Your task to perform on an android device: Open notification settings Image 0: 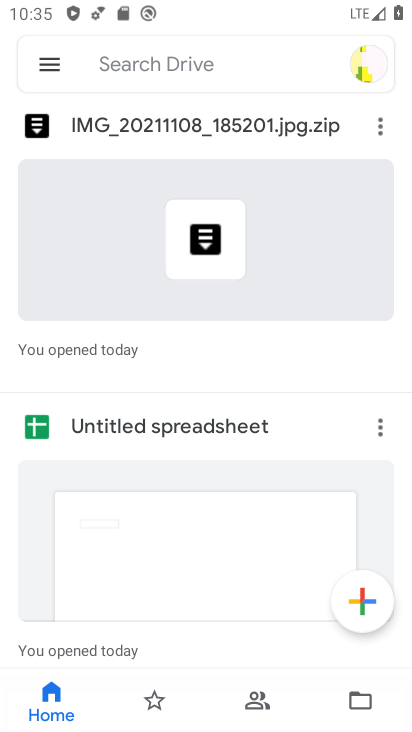
Step 0: press home button
Your task to perform on an android device: Open notification settings Image 1: 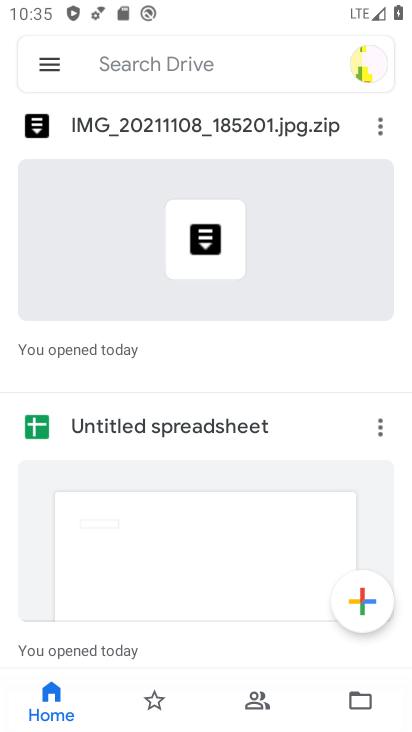
Step 1: press home button
Your task to perform on an android device: Open notification settings Image 2: 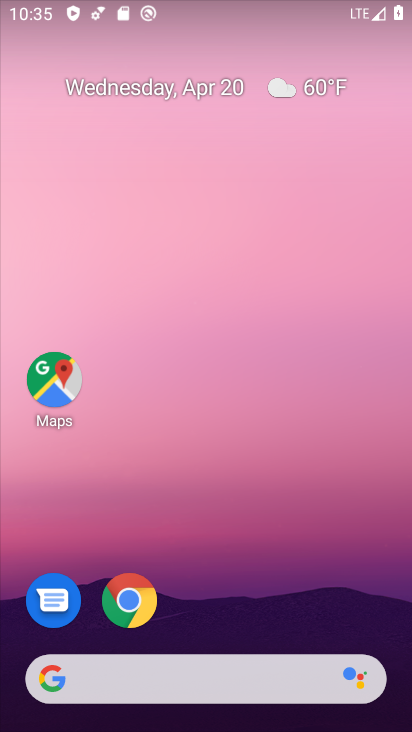
Step 2: drag from (289, 583) to (346, 90)
Your task to perform on an android device: Open notification settings Image 3: 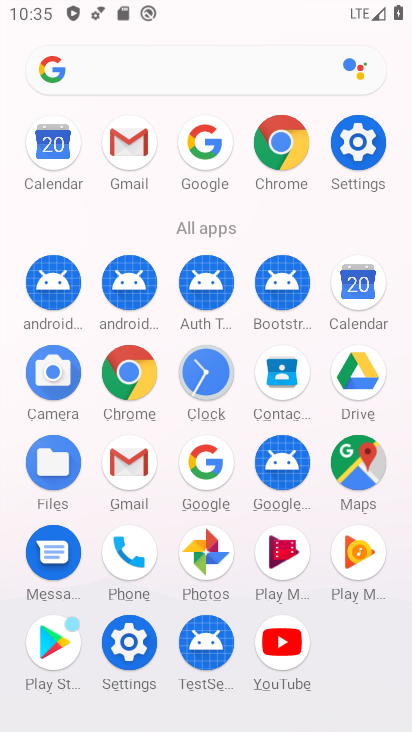
Step 3: click (374, 137)
Your task to perform on an android device: Open notification settings Image 4: 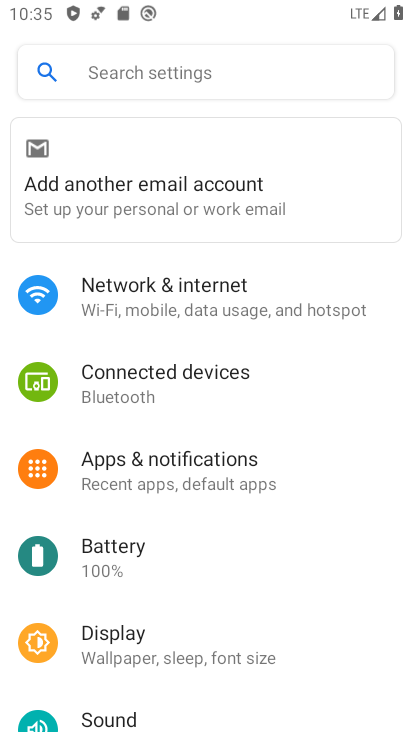
Step 4: click (225, 446)
Your task to perform on an android device: Open notification settings Image 5: 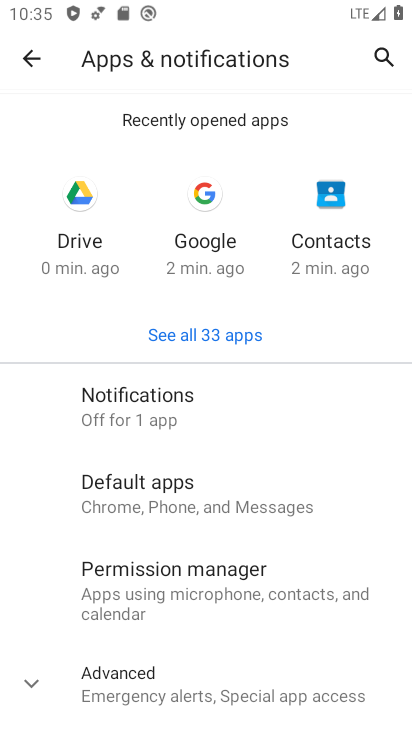
Step 5: click (132, 418)
Your task to perform on an android device: Open notification settings Image 6: 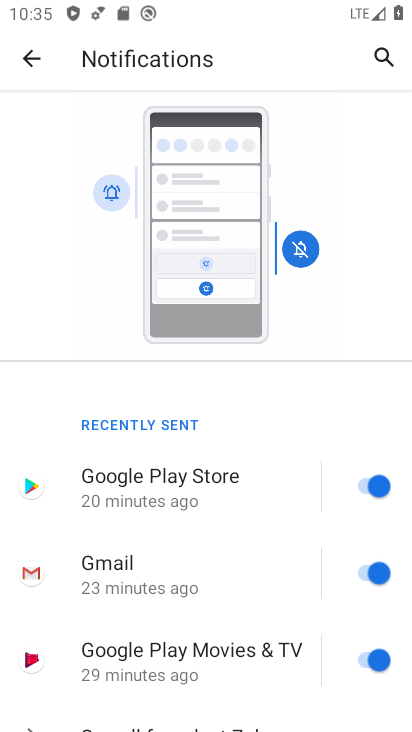
Step 6: task complete